Your task to perform on an android device: clear history in the chrome app Image 0: 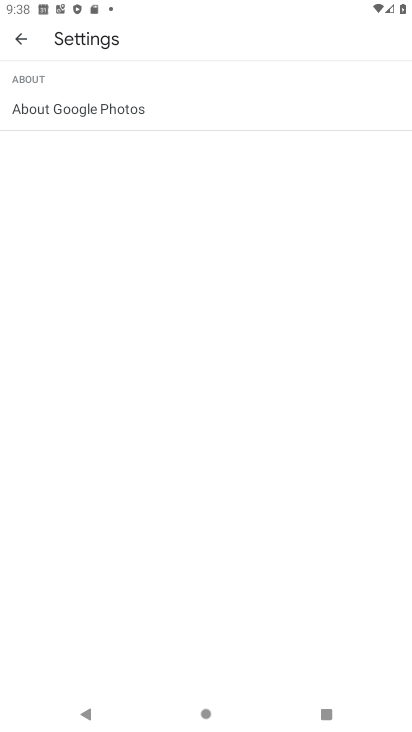
Step 0: press home button
Your task to perform on an android device: clear history in the chrome app Image 1: 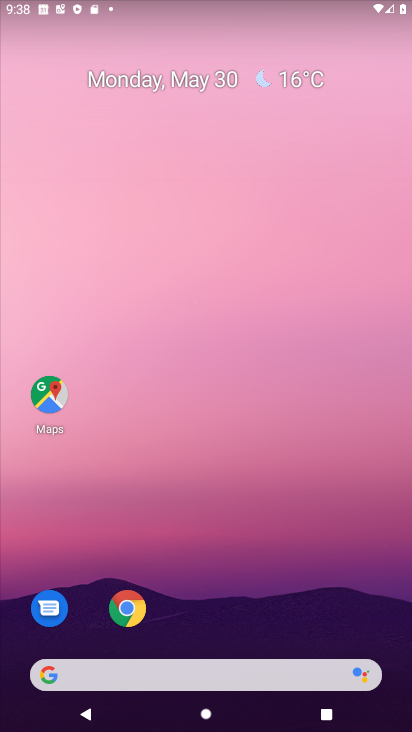
Step 1: drag from (391, 708) to (316, 194)
Your task to perform on an android device: clear history in the chrome app Image 2: 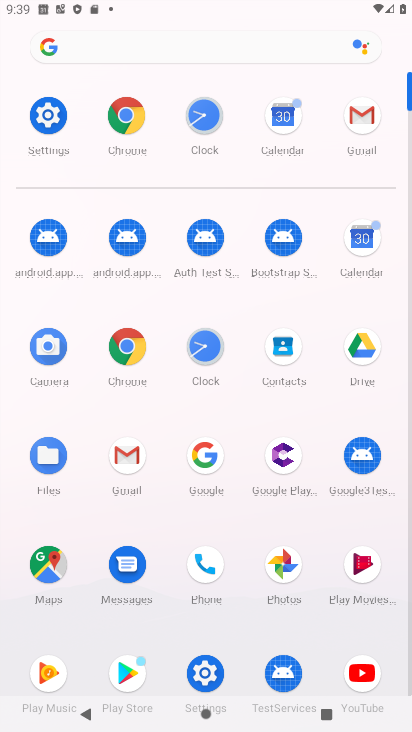
Step 2: click (133, 353)
Your task to perform on an android device: clear history in the chrome app Image 3: 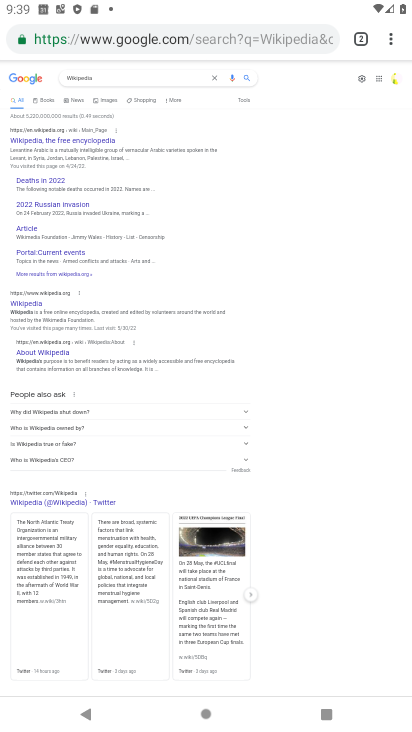
Step 3: drag from (291, 327) to (285, 515)
Your task to perform on an android device: clear history in the chrome app Image 4: 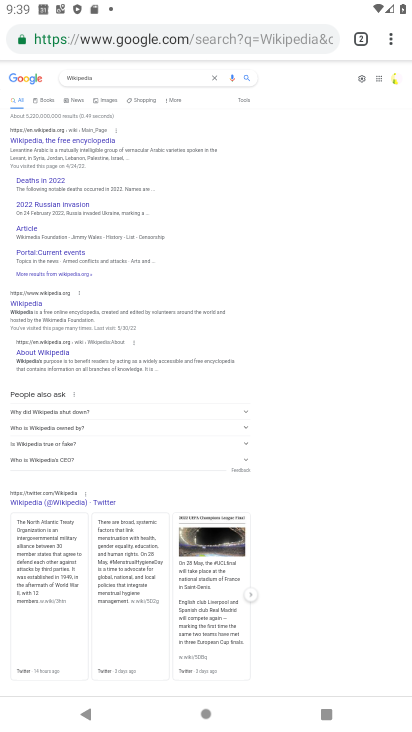
Step 4: click (389, 35)
Your task to perform on an android device: clear history in the chrome app Image 5: 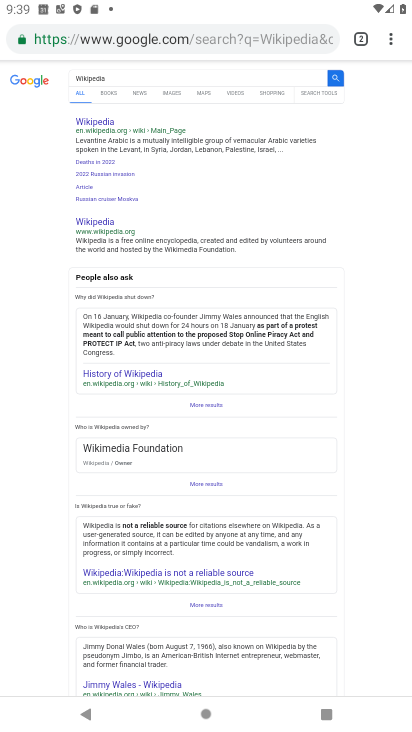
Step 5: click (390, 33)
Your task to perform on an android device: clear history in the chrome app Image 6: 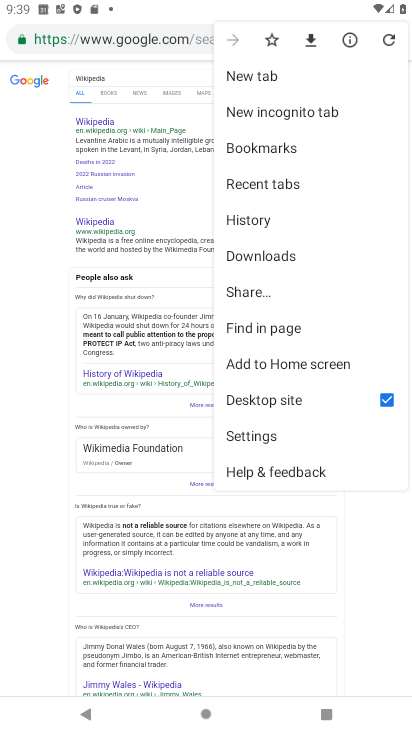
Step 6: click (248, 216)
Your task to perform on an android device: clear history in the chrome app Image 7: 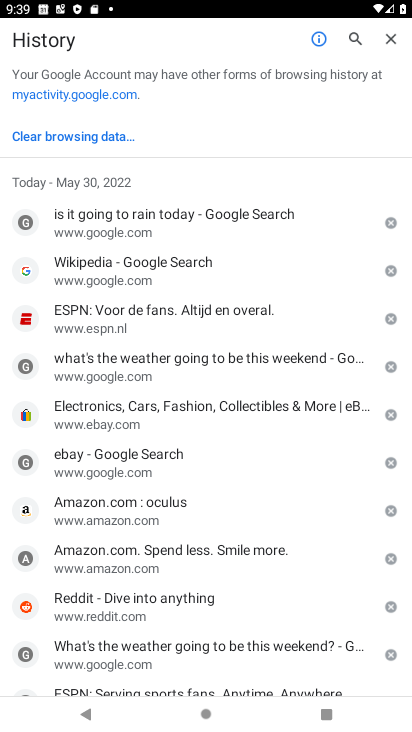
Step 7: click (61, 132)
Your task to perform on an android device: clear history in the chrome app Image 8: 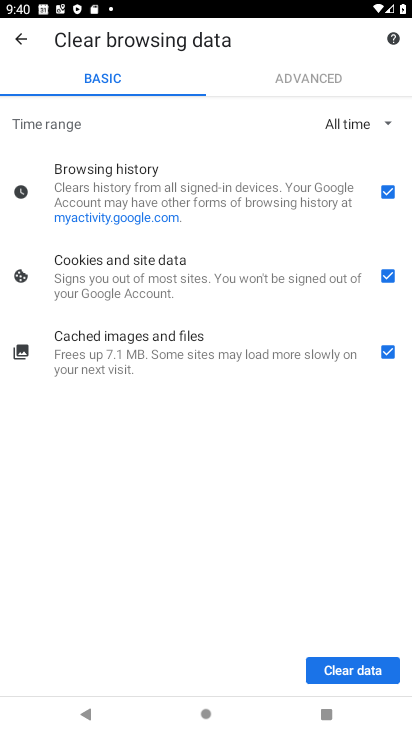
Step 8: click (324, 663)
Your task to perform on an android device: clear history in the chrome app Image 9: 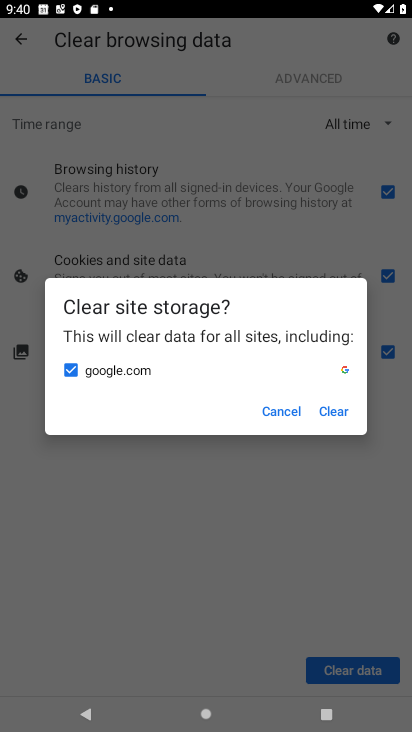
Step 9: click (335, 411)
Your task to perform on an android device: clear history in the chrome app Image 10: 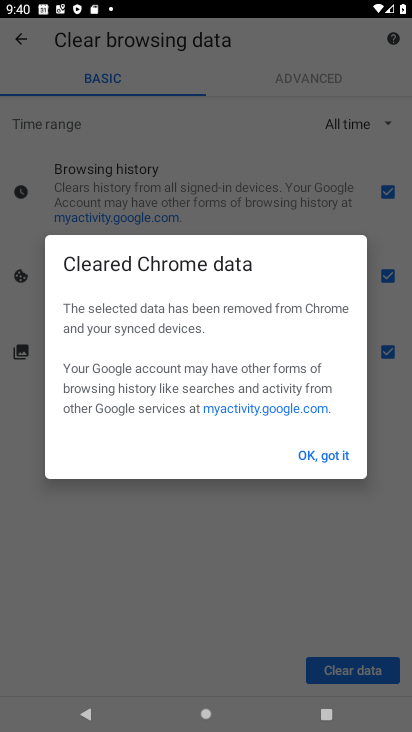
Step 10: click (300, 457)
Your task to perform on an android device: clear history in the chrome app Image 11: 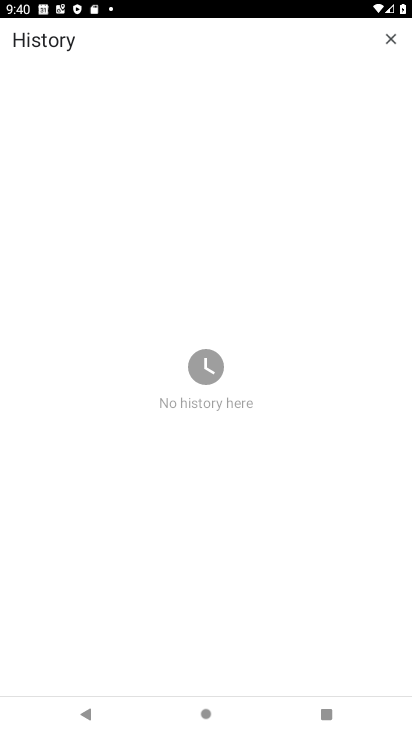
Step 11: task complete